Your task to perform on an android device: toggle translation in the chrome app Image 0: 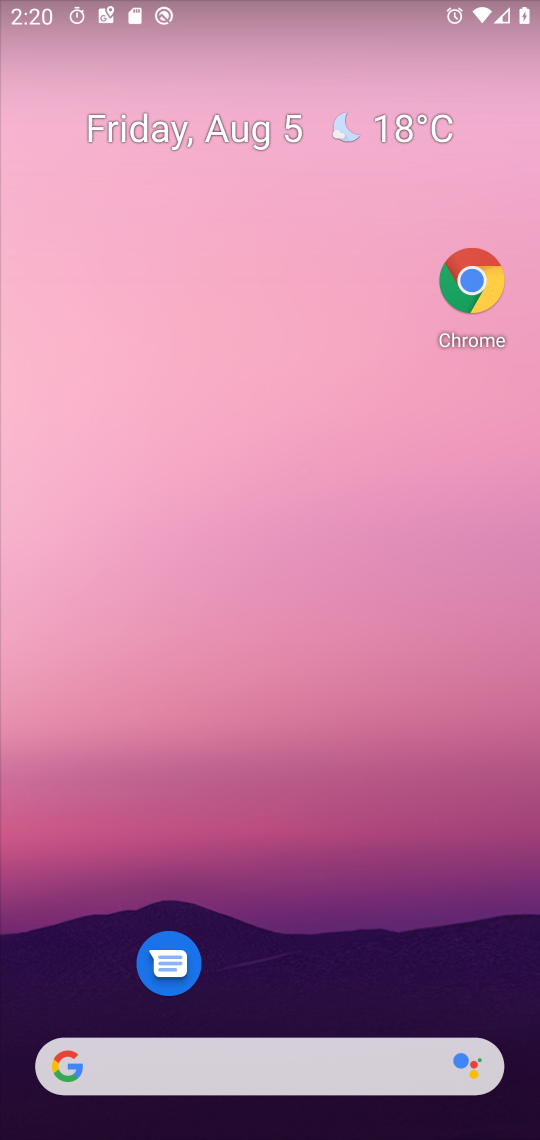
Step 0: drag from (312, 884) to (0, 278)
Your task to perform on an android device: toggle translation in the chrome app Image 1: 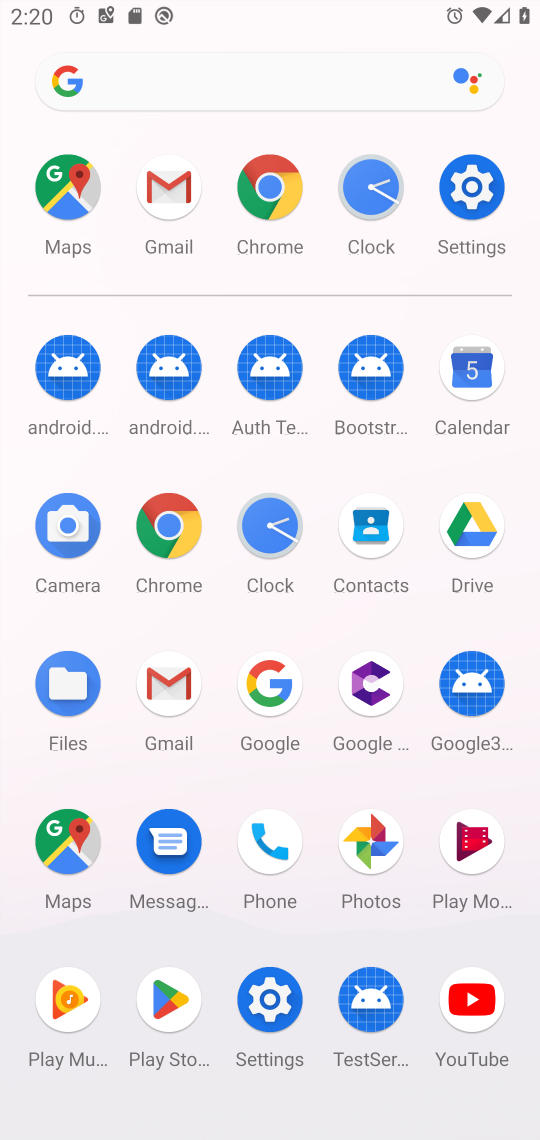
Step 1: click (273, 201)
Your task to perform on an android device: toggle translation in the chrome app Image 2: 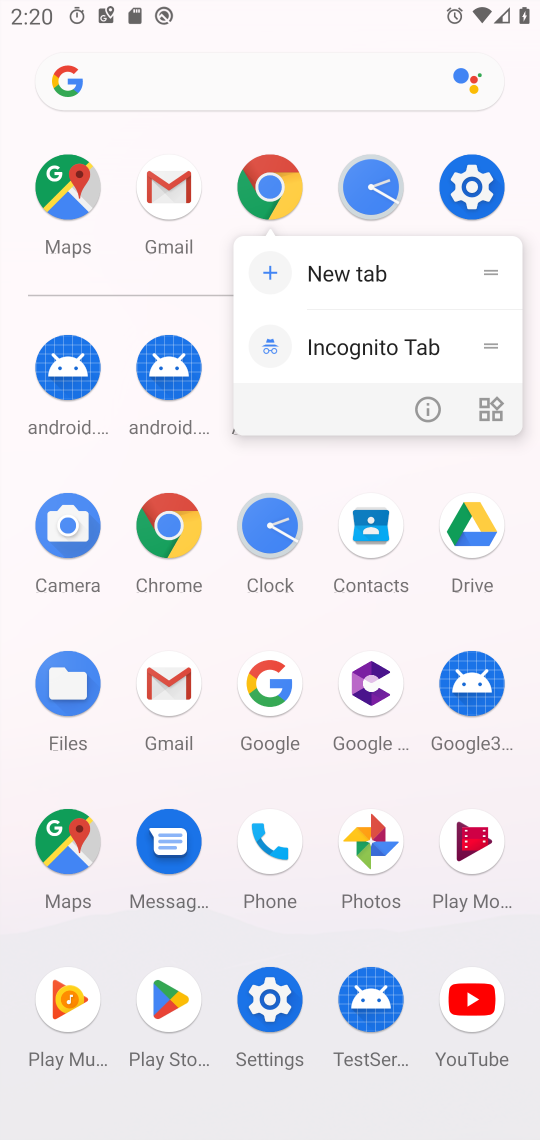
Step 2: click (272, 194)
Your task to perform on an android device: toggle translation in the chrome app Image 3: 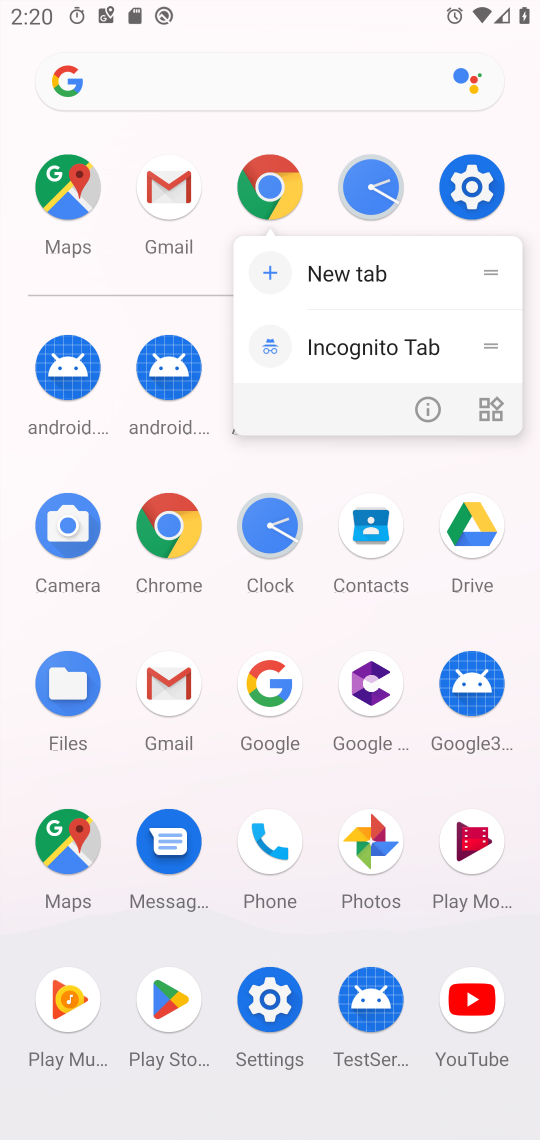
Step 3: click (272, 193)
Your task to perform on an android device: toggle translation in the chrome app Image 4: 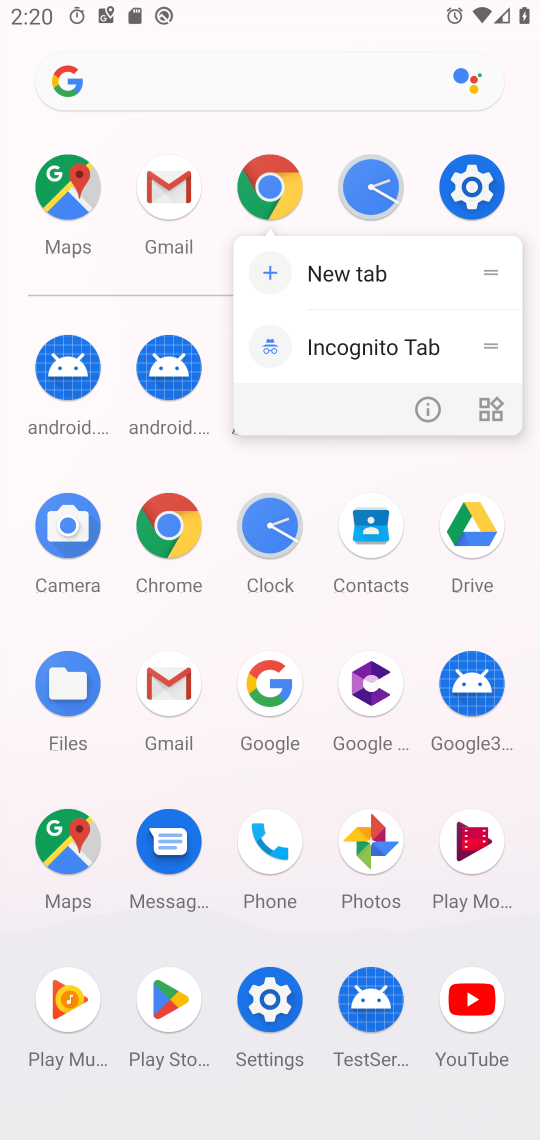
Step 4: click (272, 193)
Your task to perform on an android device: toggle translation in the chrome app Image 5: 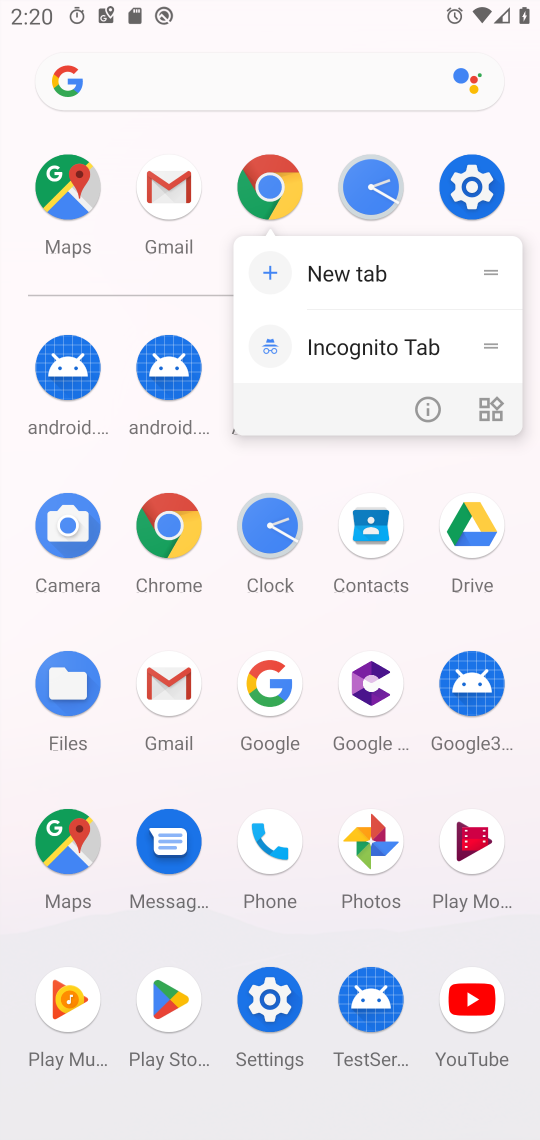
Step 5: click (271, 193)
Your task to perform on an android device: toggle translation in the chrome app Image 6: 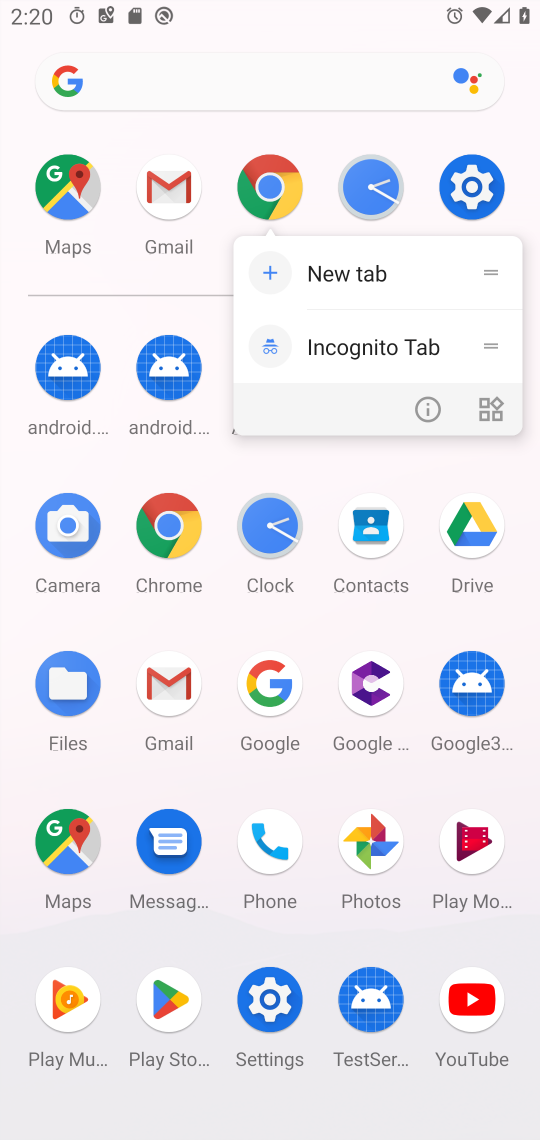
Step 6: click (271, 191)
Your task to perform on an android device: toggle translation in the chrome app Image 7: 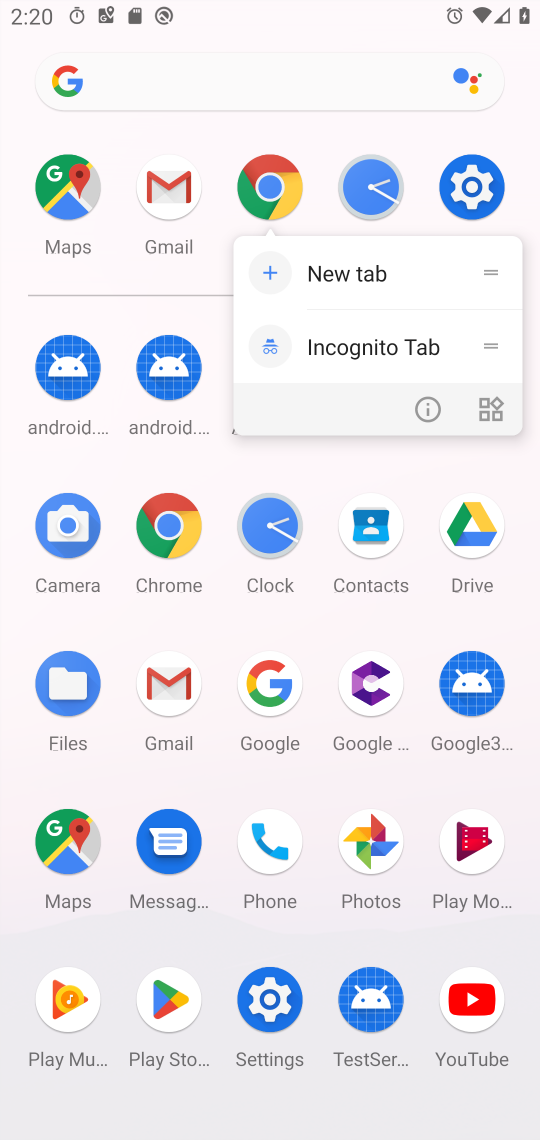
Step 7: click (269, 191)
Your task to perform on an android device: toggle translation in the chrome app Image 8: 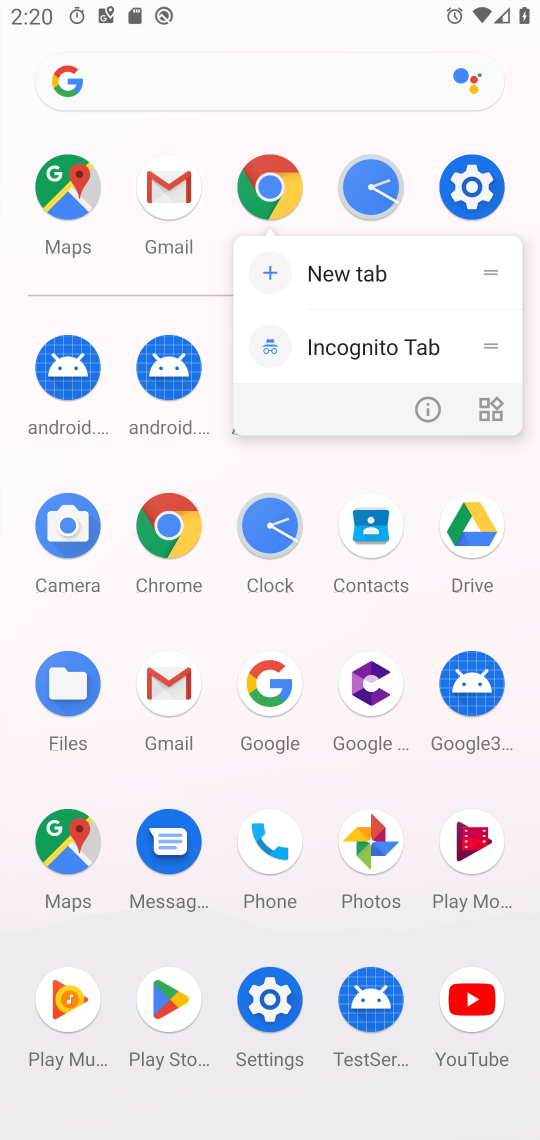
Step 8: click (269, 191)
Your task to perform on an android device: toggle translation in the chrome app Image 9: 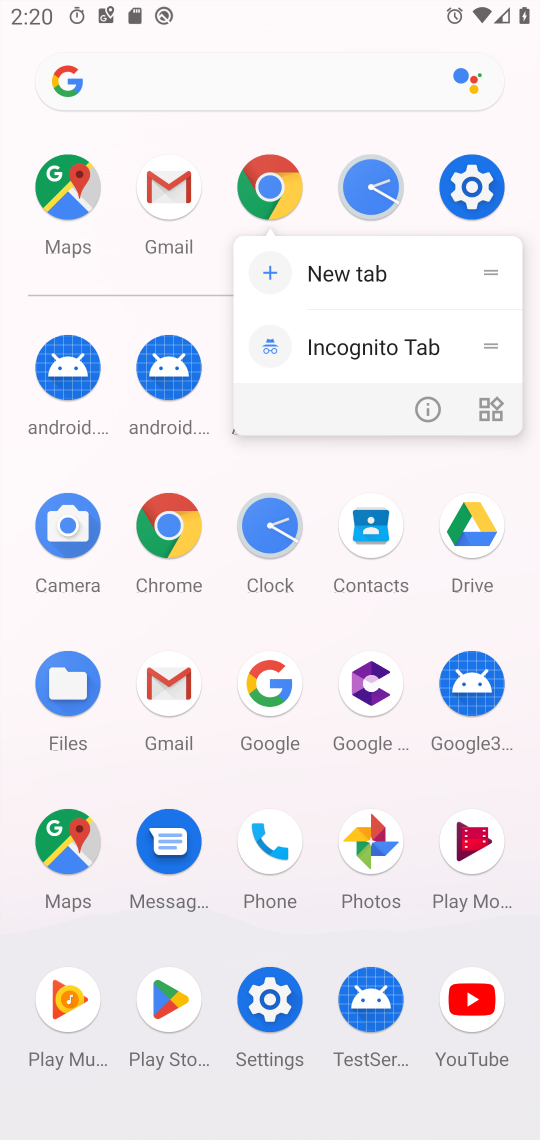
Step 9: click (269, 191)
Your task to perform on an android device: toggle translation in the chrome app Image 10: 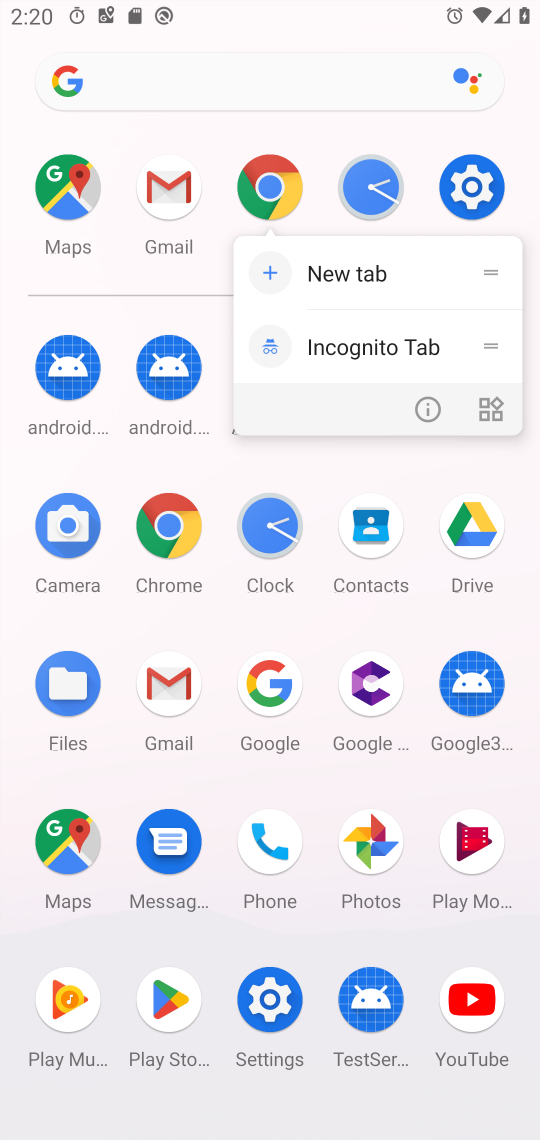
Step 10: click (269, 193)
Your task to perform on an android device: toggle translation in the chrome app Image 11: 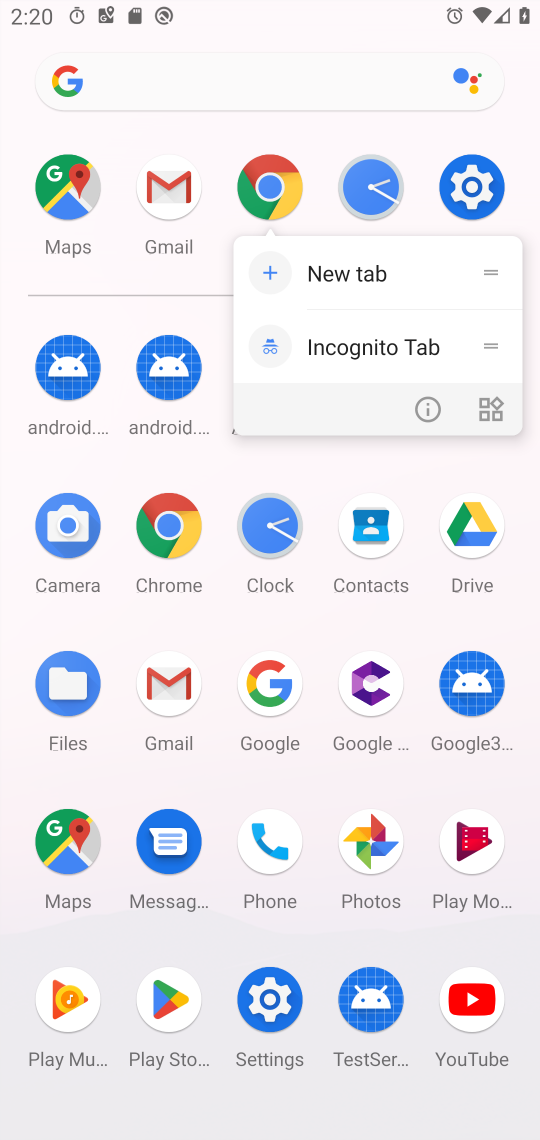
Step 11: click (273, 207)
Your task to perform on an android device: toggle translation in the chrome app Image 12: 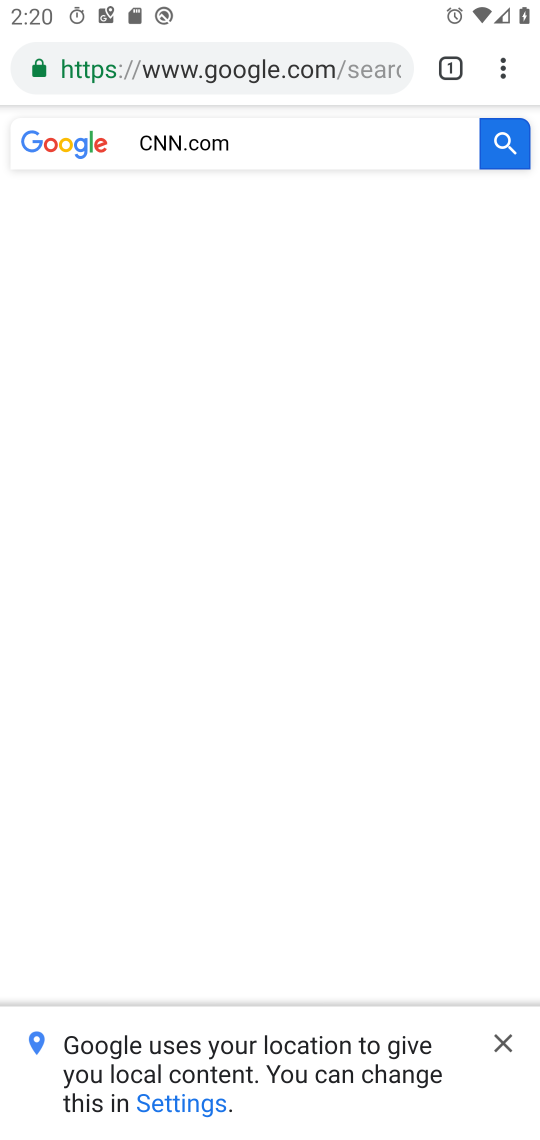
Step 12: drag from (499, 80) to (272, 753)
Your task to perform on an android device: toggle translation in the chrome app Image 13: 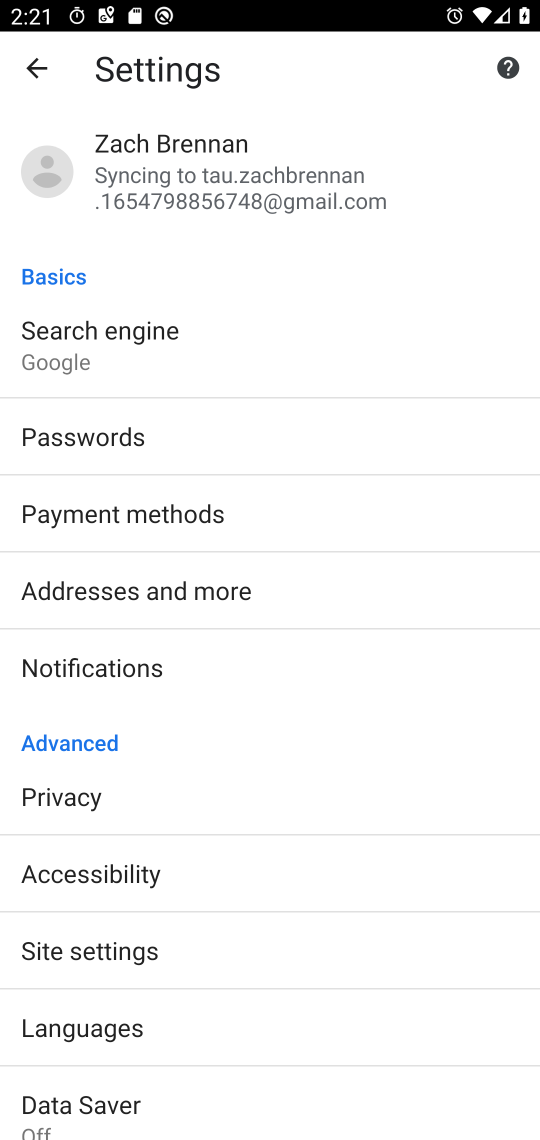
Step 13: drag from (157, 1020) to (2, 436)
Your task to perform on an android device: toggle translation in the chrome app Image 14: 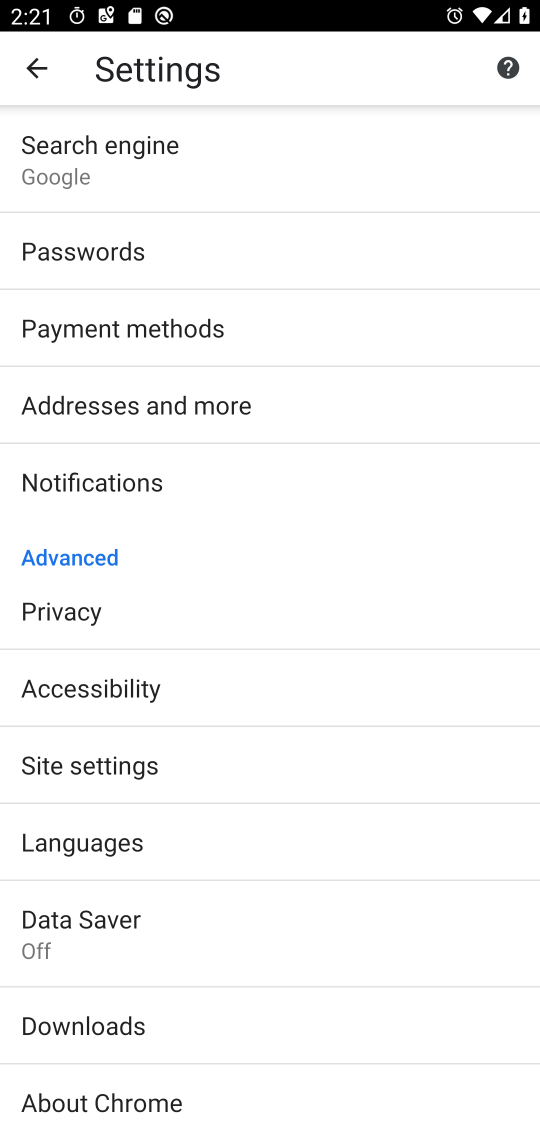
Step 14: click (84, 828)
Your task to perform on an android device: toggle translation in the chrome app Image 15: 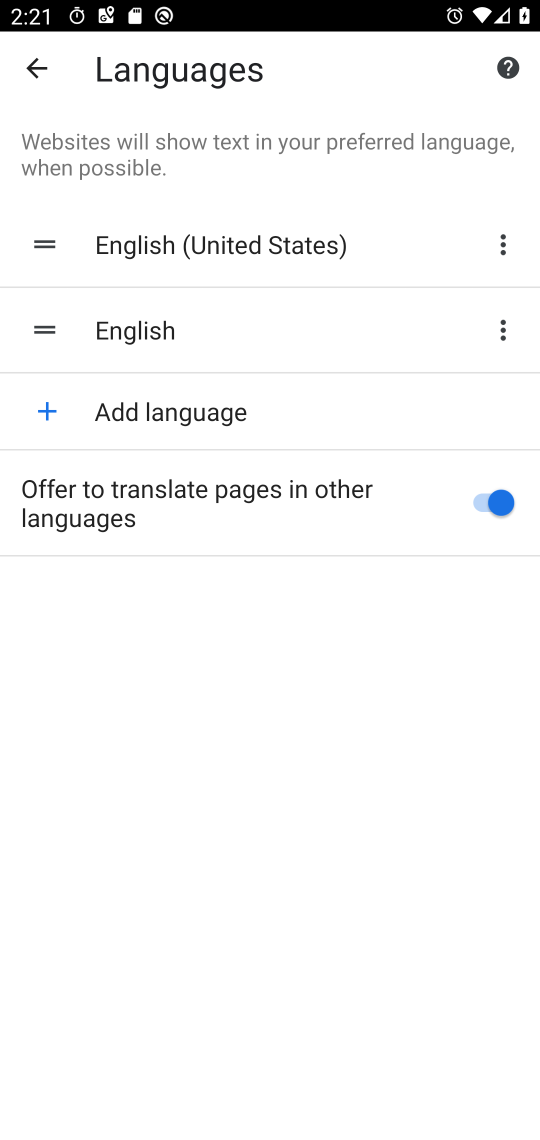
Step 15: click (478, 501)
Your task to perform on an android device: toggle translation in the chrome app Image 16: 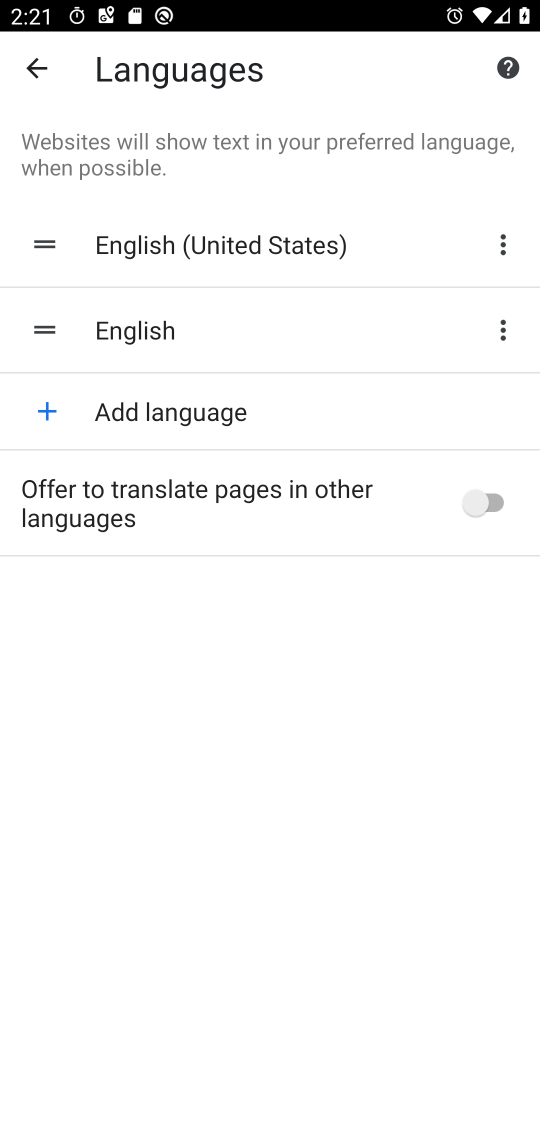
Step 16: click (499, 497)
Your task to perform on an android device: toggle translation in the chrome app Image 17: 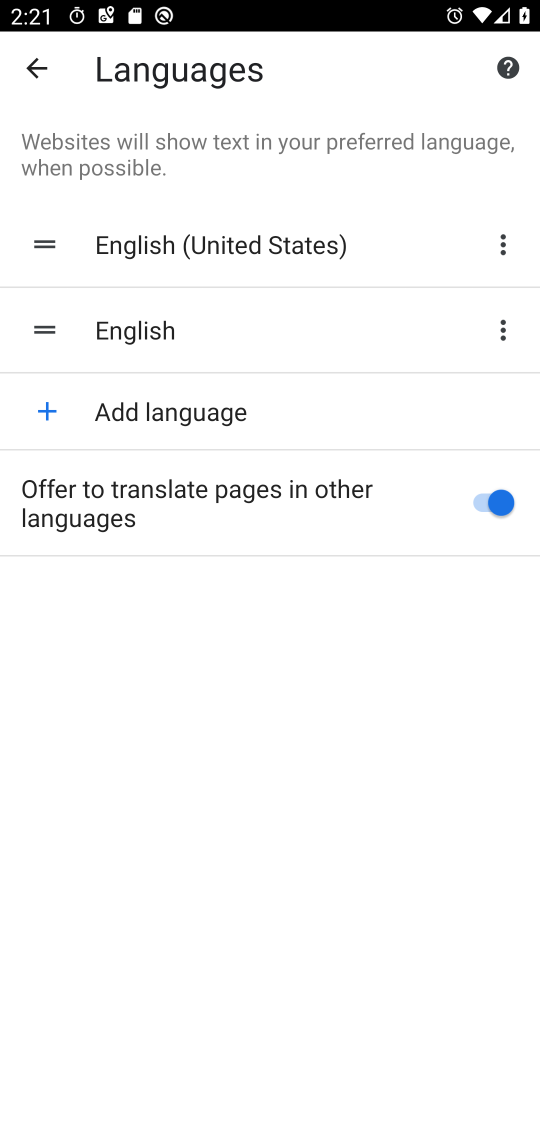
Step 17: task complete